Your task to perform on an android device: Open location settings Image 0: 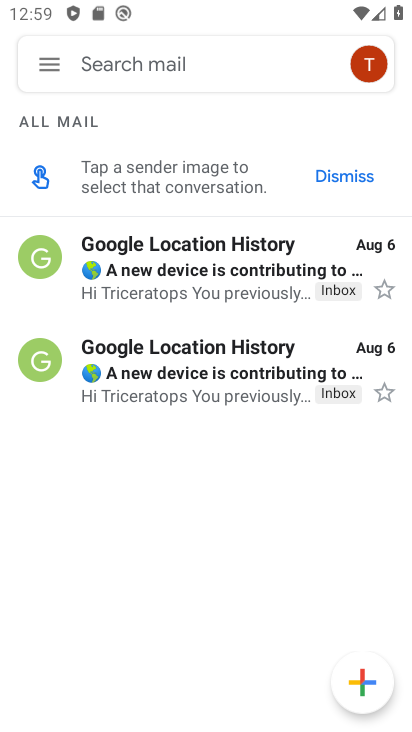
Step 0: press home button
Your task to perform on an android device: Open location settings Image 1: 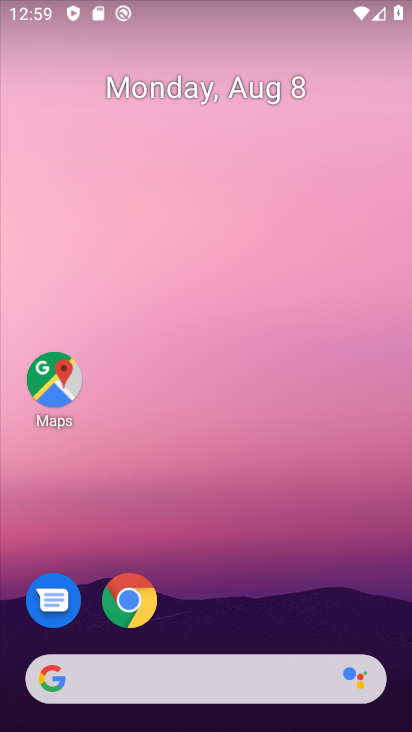
Step 1: drag from (276, 607) to (242, 10)
Your task to perform on an android device: Open location settings Image 2: 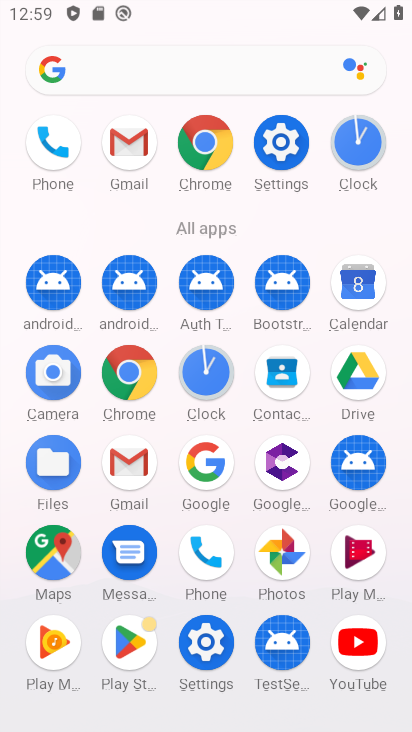
Step 2: click (287, 131)
Your task to perform on an android device: Open location settings Image 3: 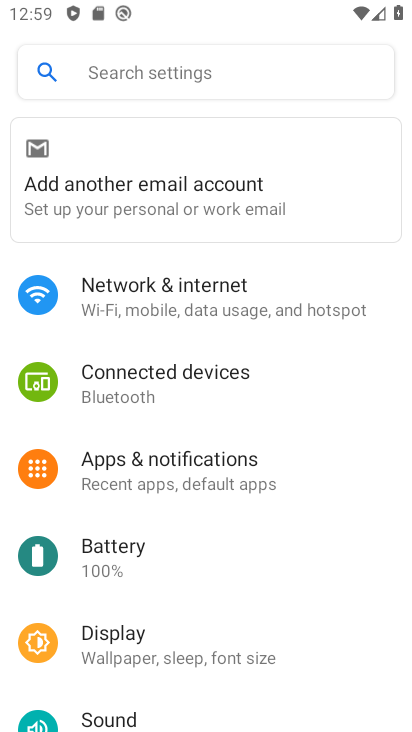
Step 3: drag from (238, 654) to (158, 25)
Your task to perform on an android device: Open location settings Image 4: 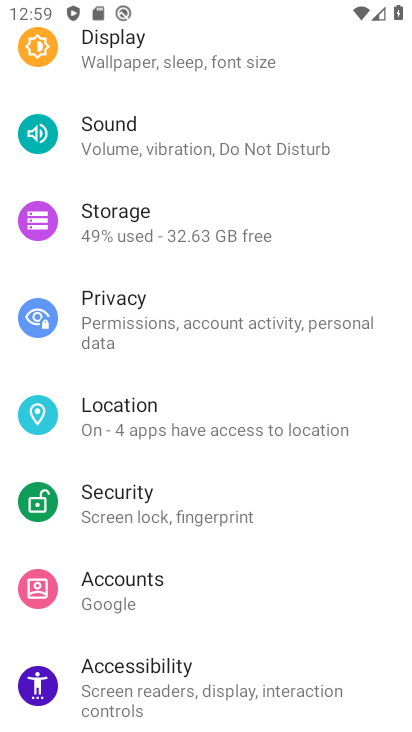
Step 4: drag from (195, 570) to (197, 317)
Your task to perform on an android device: Open location settings Image 5: 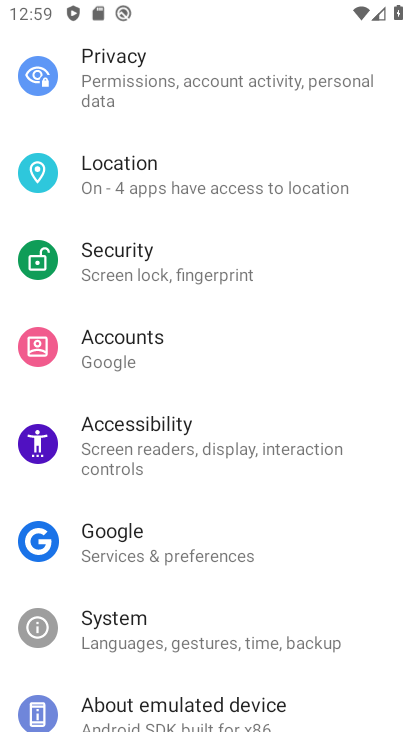
Step 5: click (166, 171)
Your task to perform on an android device: Open location settings Image 6: 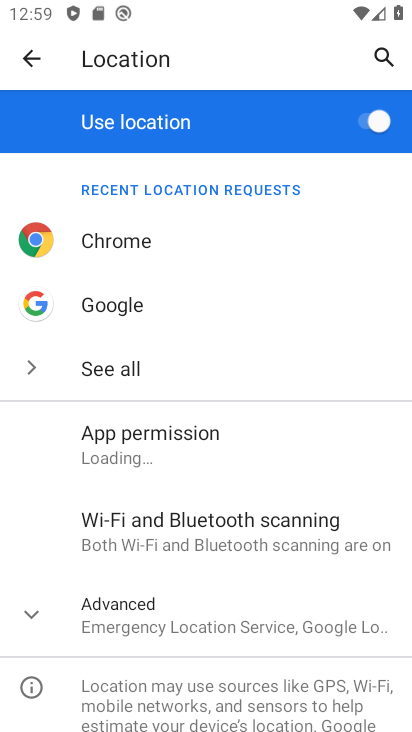
Step 6: task complete